Your task to perform on an android device: Show me recent news Image 0: 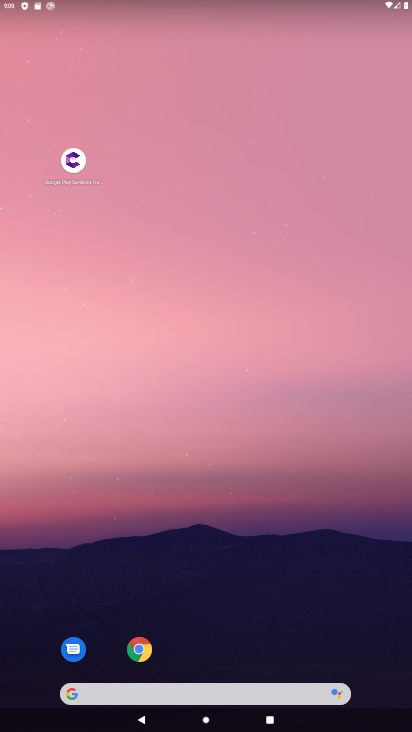
Step 0: click (138, 702)
Your task to perform on an android device: Show me recent news Image 1: 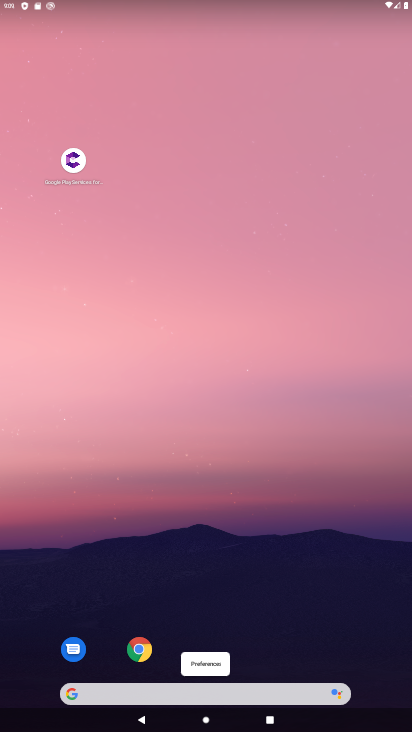
Step 1: click (130, 688)
Your task to perform on an android device: Show me recent news Image 2: 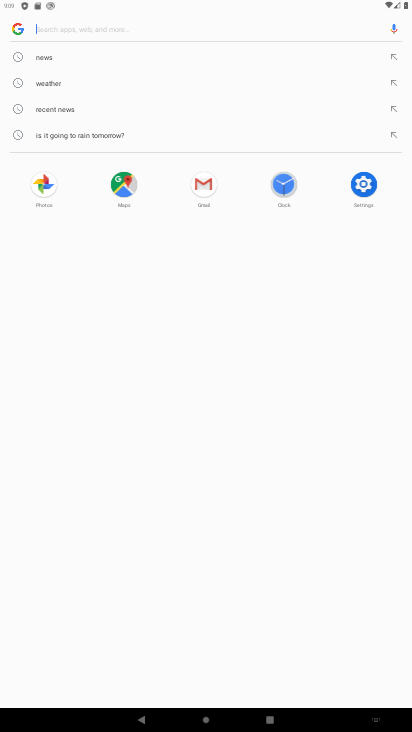
Step 2: click (59, 59)
Your task to perform on an android device: Show me recent news Image 3: 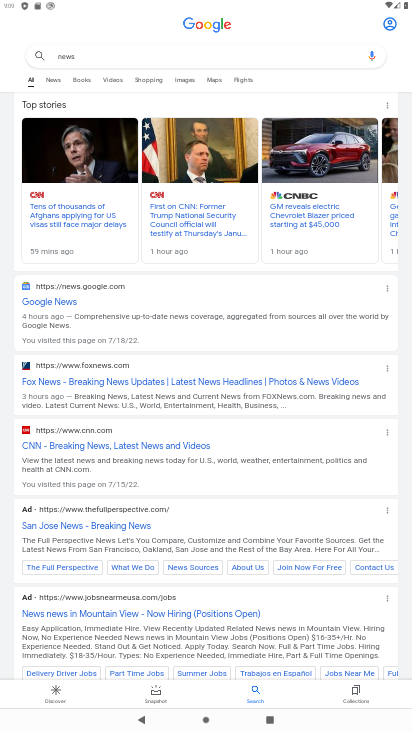
Step 3: task complete